Your task to perform on an android device: Open ESPN.com Image 0: 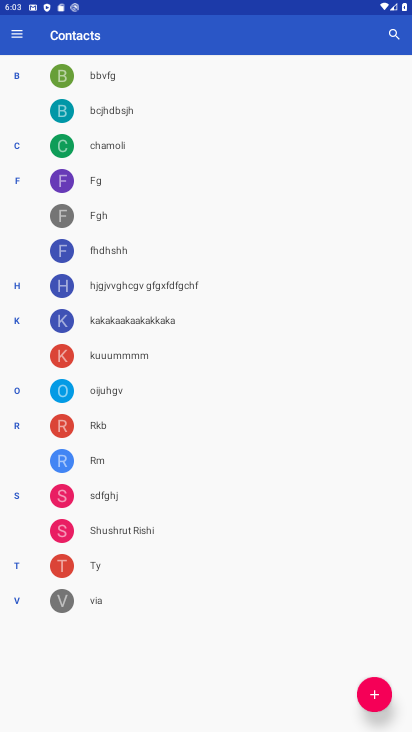
Step 0: press home button
Your task to perform on an android device: Open ESPN.com Image 1: 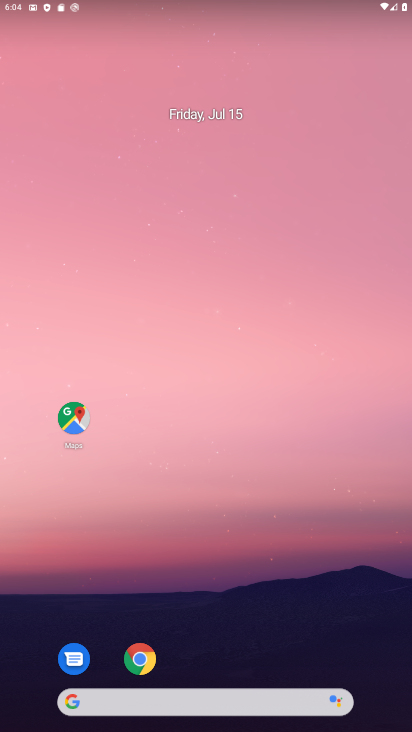
Step 1: click (141, 660)
Your task to perform on an android device: Open ESPN.com Image 2: 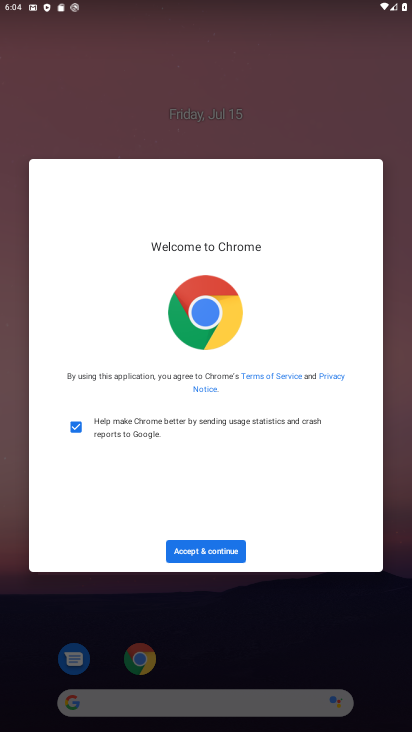
Step 2: click (207, 549)
Your task to perform on an android device: Open ESPN.com Image 3: 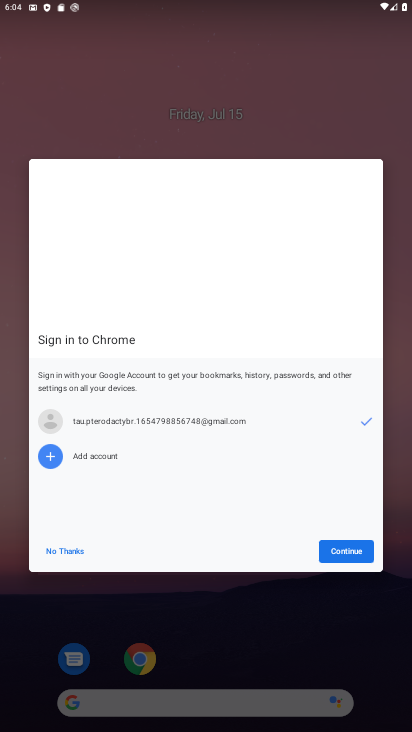
Step 3: click (335, 547)
Your task to perform on an android device: Open ESPN.com Image 4: 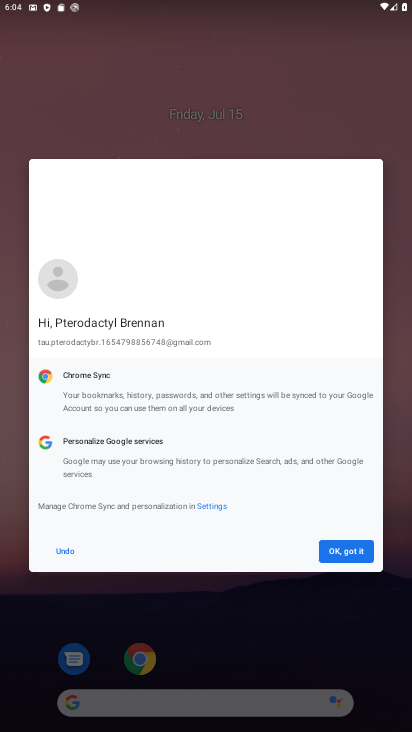
Step 4: click (350, 549)
Your task to perform on an android device: Open ESPN.com Image 5: 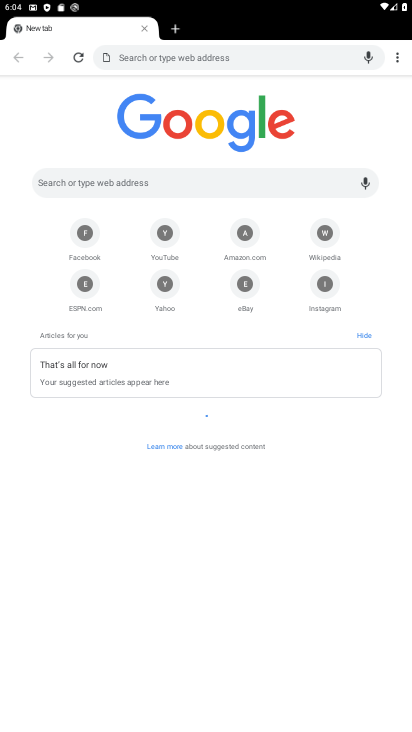
Step 5: click (170, 183)
Your task to perform on an android device: Open ESPN.com Image 6: 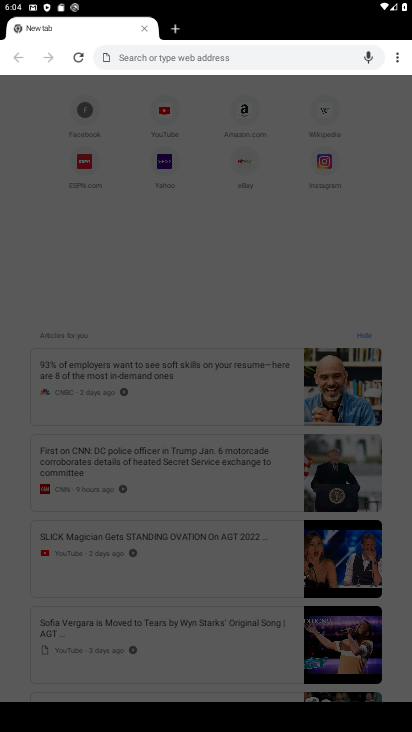
Step 6: type "ESPN.com"
Your task to perform on an android device: Open ESPN.com Image 7: 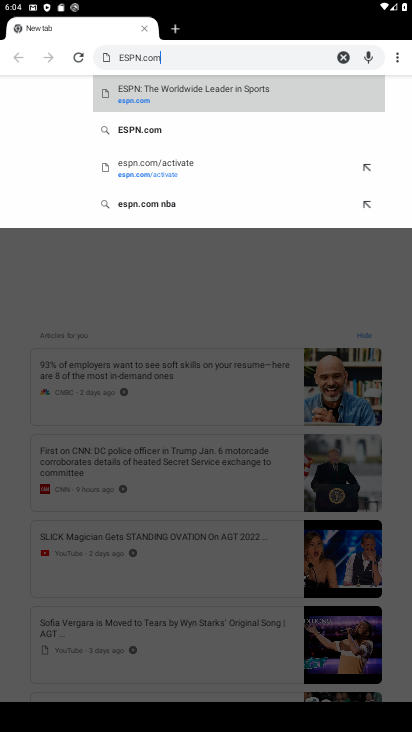
Step 7: click (149, 98)
Your task to perform on an android device: Open ESPN.com Image 8: 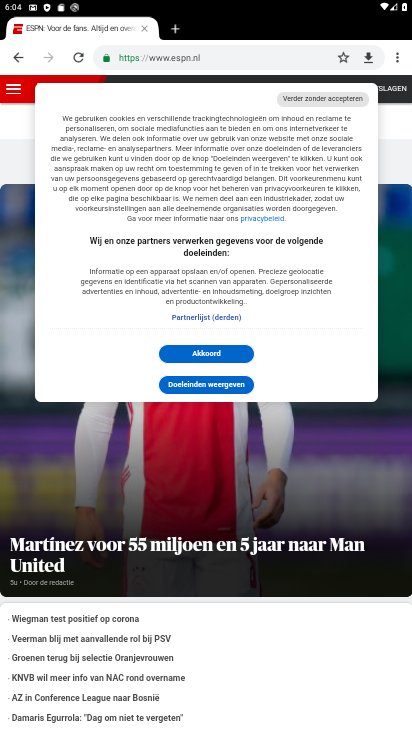
Step 8: drag from (318, 644) to (282, 212)
Your task to perform on an android device: Open ESPN.com Image 9: 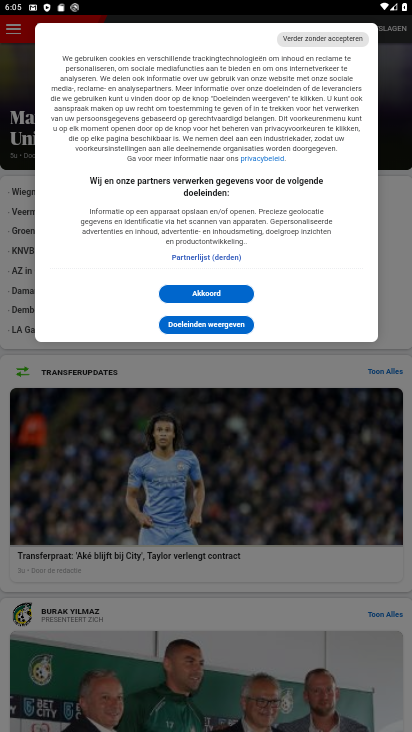
Step 9: click (206, 294)
Your task to perform on an android device: Open ESPN.com Image 10: 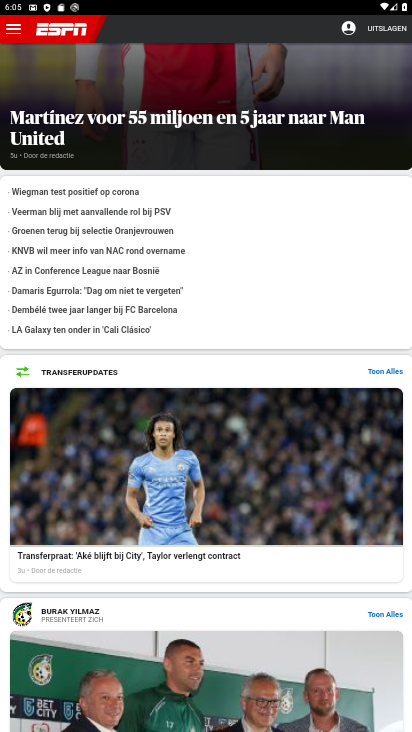
Step 10: task complete